Your task to perform on an android device: delete the emails in spam in the gmail app Image 0: 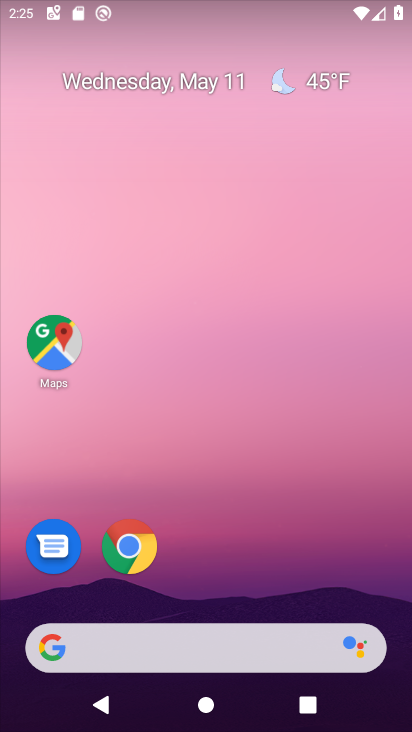
Step 0: drag from (188, 572) to (304, 1)
Your task to perform on an android device: delete the emails in spam in the gmail app Image 1: 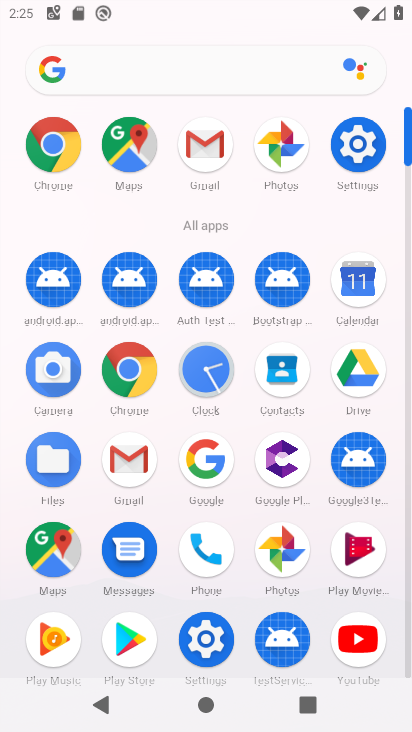
Step 1: click (144, 465)
Your task to perform on an android device: delete the emails in spam in the gmail app Image 2: 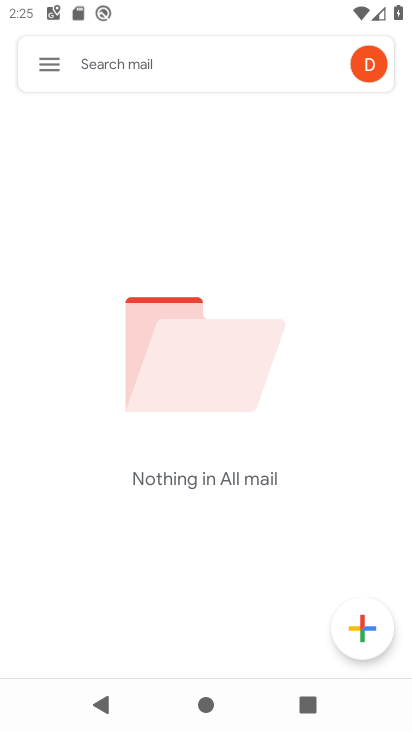
Step 2: click (50, 59)
Your task to perform on an android device: delete the emails in spam in the gmail app Image 3: 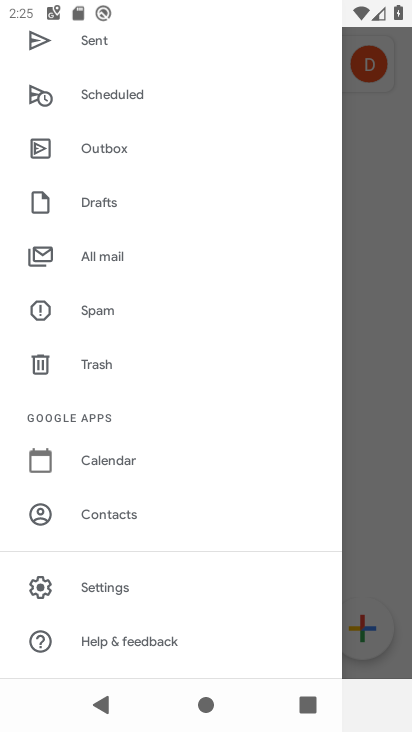
Step 3: click (108, 301)
Your task to perform on an android device: delete the emails in spam in the gmail app Image 4: 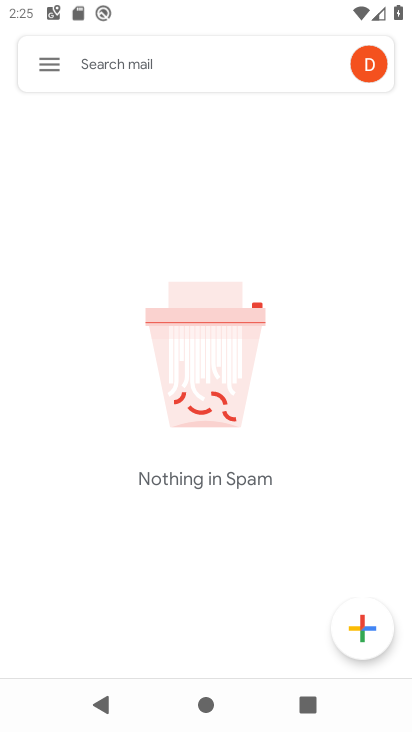
Step 4: task complete